Your task to perform on an android device: Go to location settings Image 0: 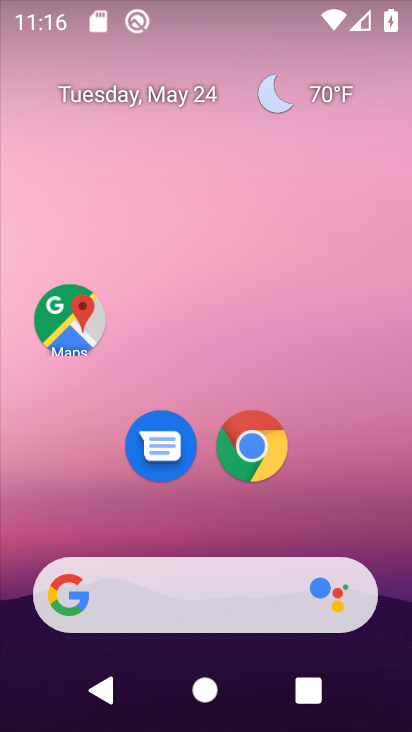
Step 0: drag from (203, 532) to (274, 182)
Your task to perform on an android device: Go to location settings Image 1: 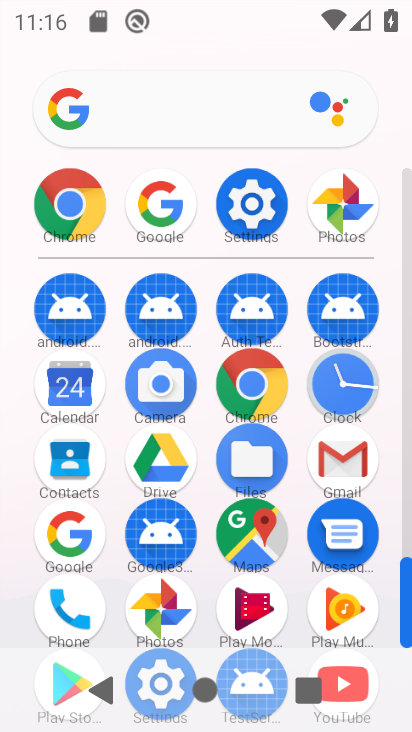
Step 1: drag from (210, 276) to (216, 134)
Your task to perform on an android device: Go to location settings Image 2: 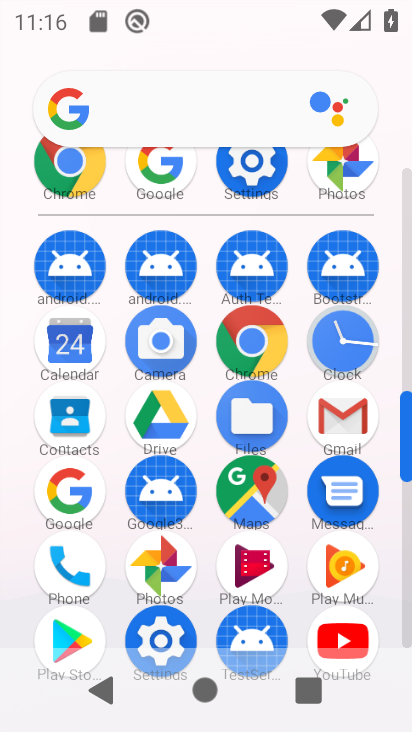
Step 2: click (158, 642)
Your task to perform on an android device: Go to location settings Image 3: 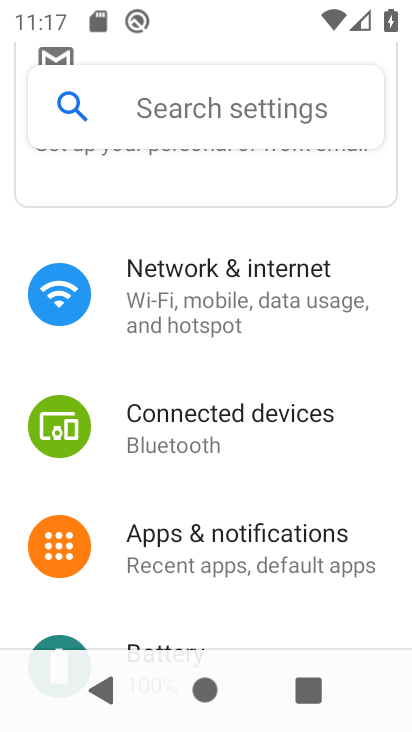
Step 3: drag from (227, 566) to (266, 224)
Your task to perform on an android device: Go to location settings Image 4: 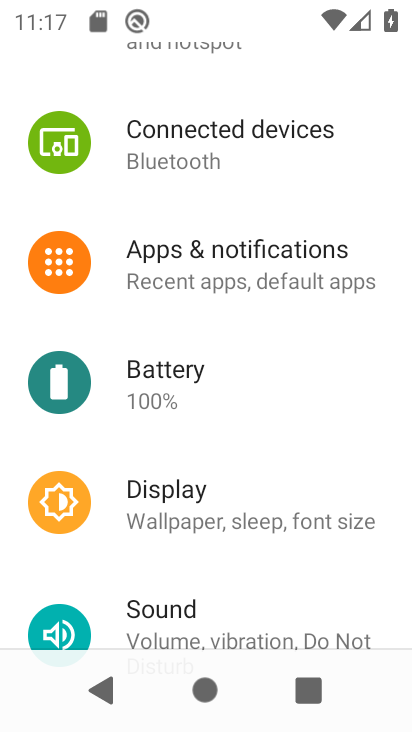
Step 4: drag from (193, 564) to (261, 173)
Your task to perform on an android device: Go to location settings Image 5: 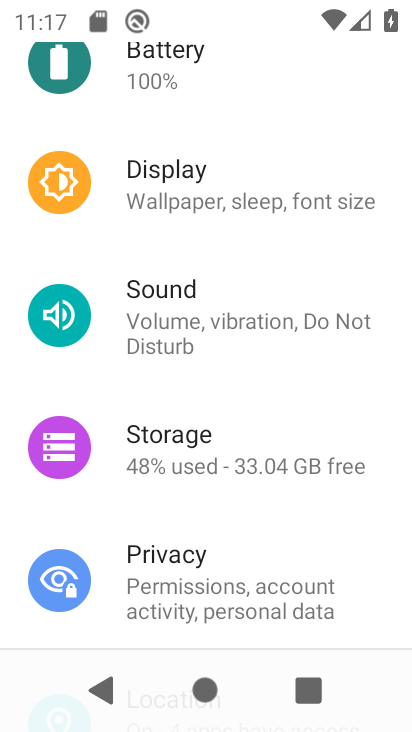
Step 5: drag from (235, 556) to (310, 170)
Your task to perform on an android device: Go to location settings Image 6: 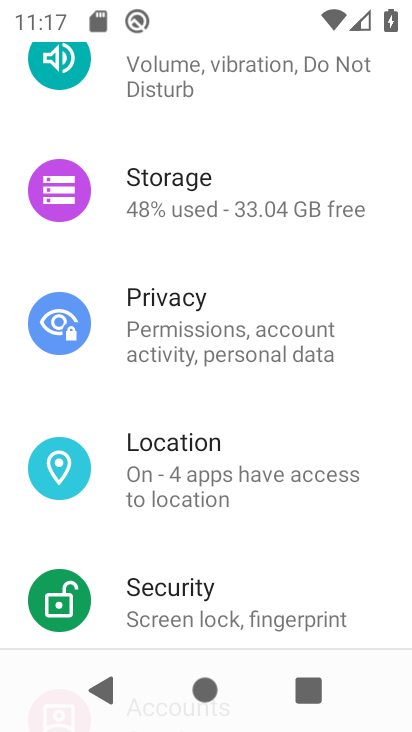
Step 6: click (155, 482)
Your task to perform on an android device: Go to location settings Image 7: 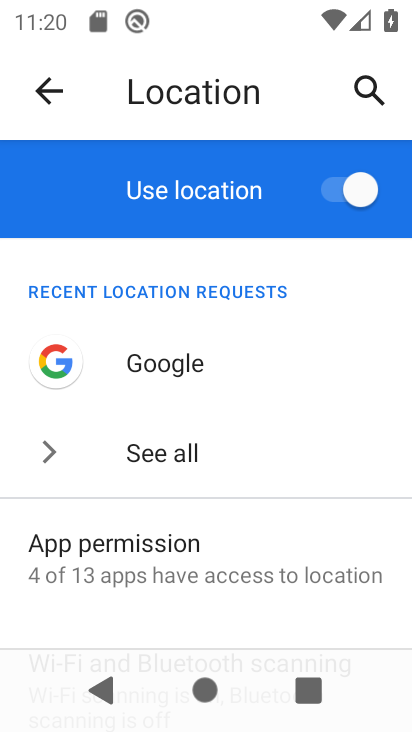
Step 7: task complete